Your task to perform on an android device: check android version Image 0: 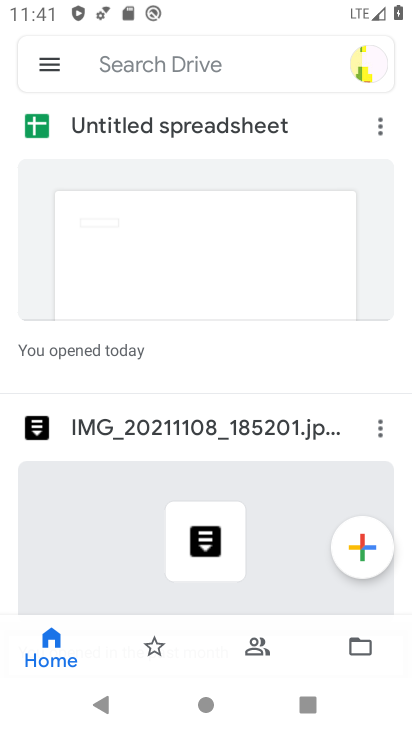
Step 0: drag from (315, 13) to (408, 434)
Your task to perform on an android device: check android version Image 1: 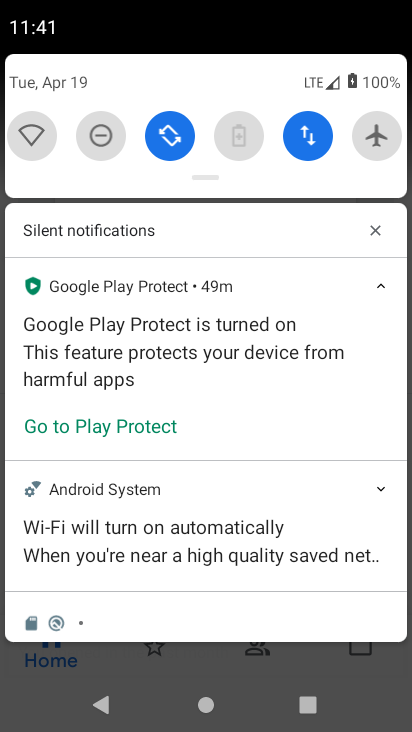
Step 1: drag from (236, 83) to (4, 476)
Your task to perform on an android device: check android version Image 2: 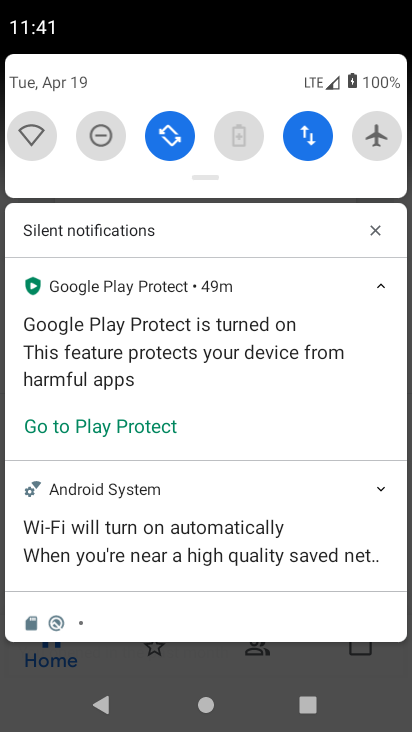
Step 2: drag from (207, 83) to (147, 643)
Your task to perform on an android device: check android version Image 3: 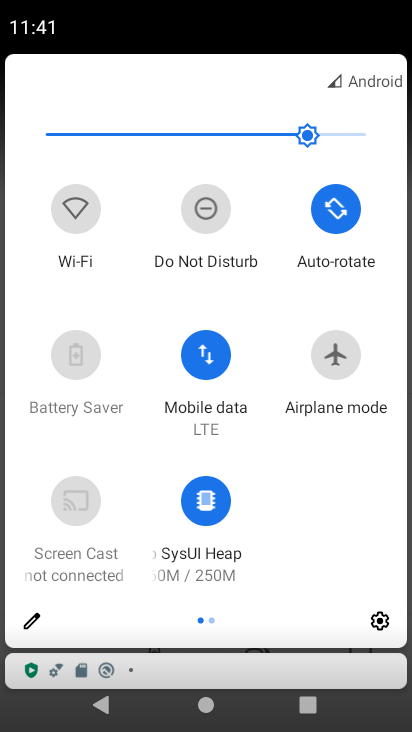
Step 3: click (383, 628)
Your task to perform on an android device: check android version Image 4: 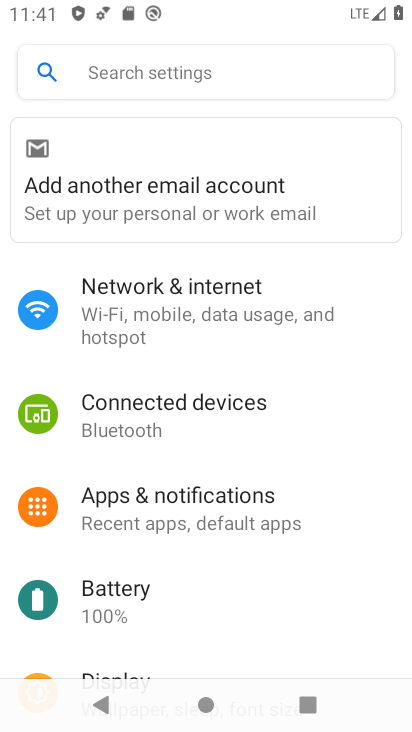
Step 4: drag from (139, 643) to (6, 83)
Your task to perform on an android device: check android version Image 5: 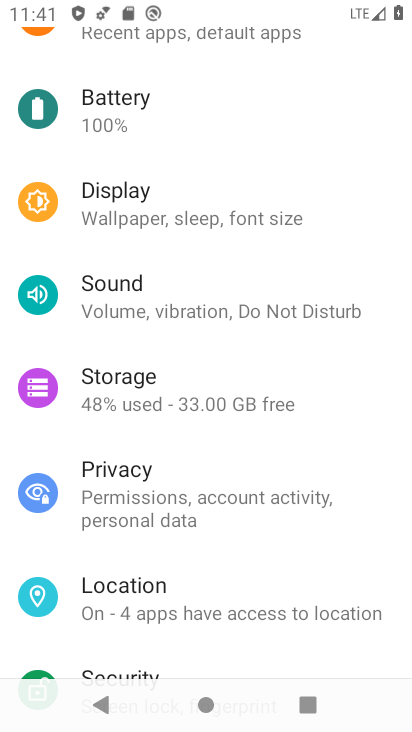
Step 5: drag from (139, 681) to (192, 7)
Your task to perform on an android device: check android version Image 6: 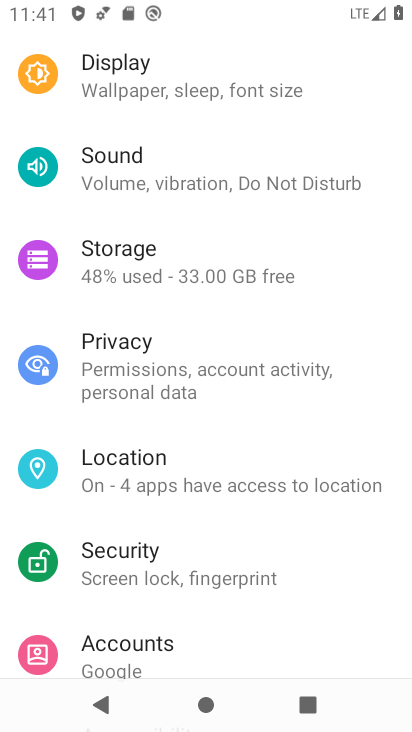
Step 6: drag from (116, 631) to (285, 76)
Your task to perform on an android device: check android version Image 7: 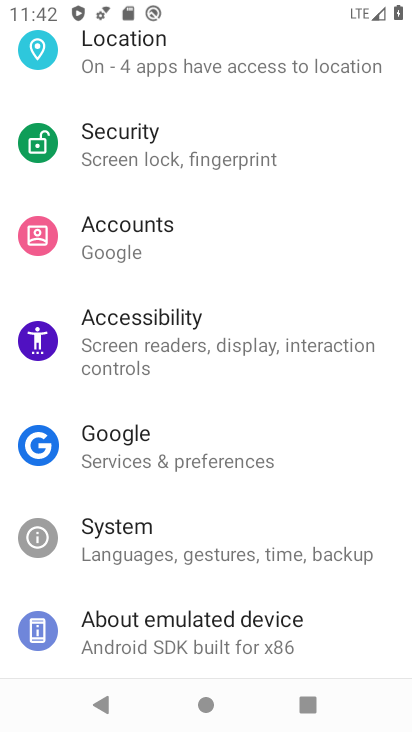
Step 7: drag from (131, 618) to (297, 118)
Your task to perform on an android device: check android version Image 8: 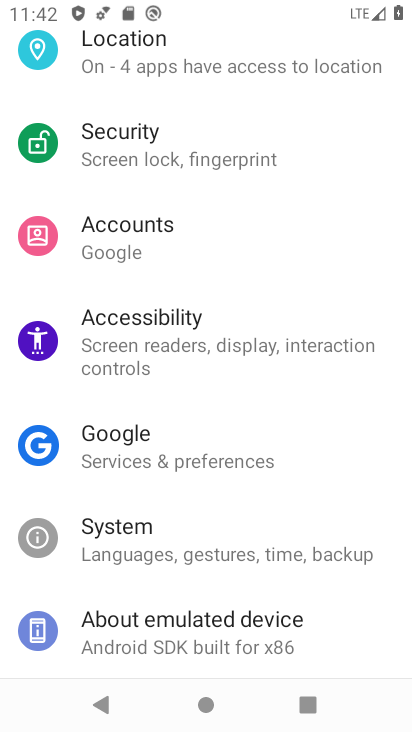
Step 8: click (133, 648)
Your task to perform on an android device: check android version Image 9: 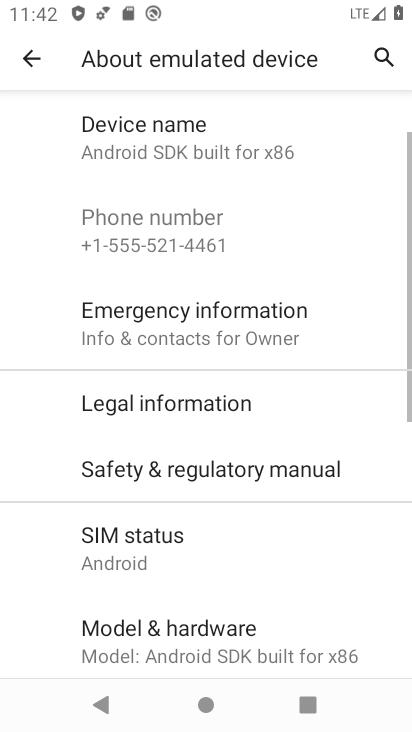
Step 9: drag from (92, 629) to (305, 21)
Your task to perform on an android device: check android version Image 10: 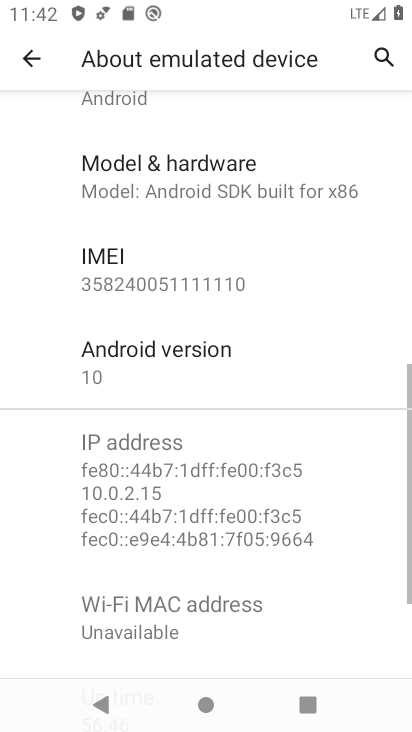
Step 10: drag from (180, 582) to (268, 221)
Your task to perform on an android device: check android version Image 11: 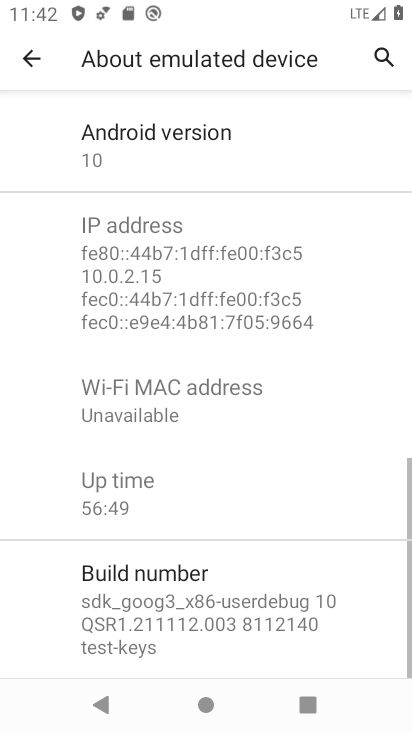
Step 11: click (179, 171)
Your task to perform on an android device: check android version Image 12: 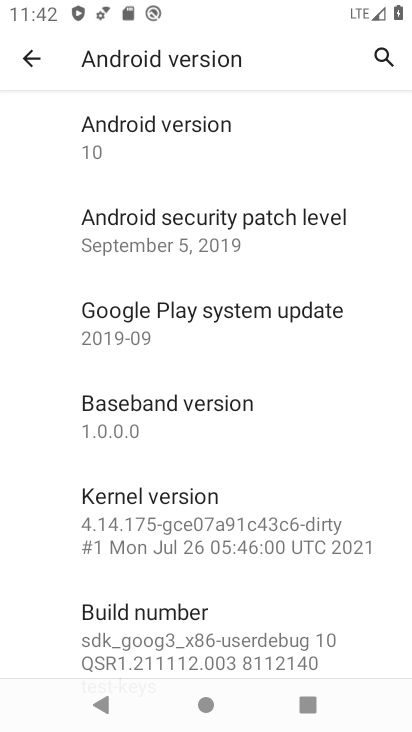
Step 12: task complete